Your task to perform on an android device: Open Youtube and go to the subscriptions tab Image 0: 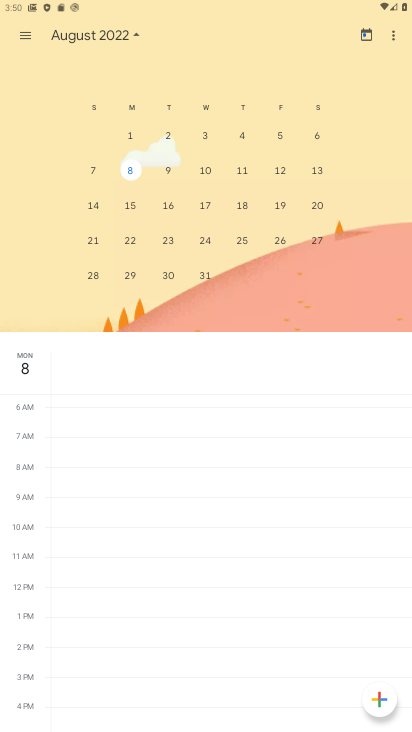
Step 0: press home button
Your task to perform on an android device: Open Youtube and go to the subscriptions tab Image 1: 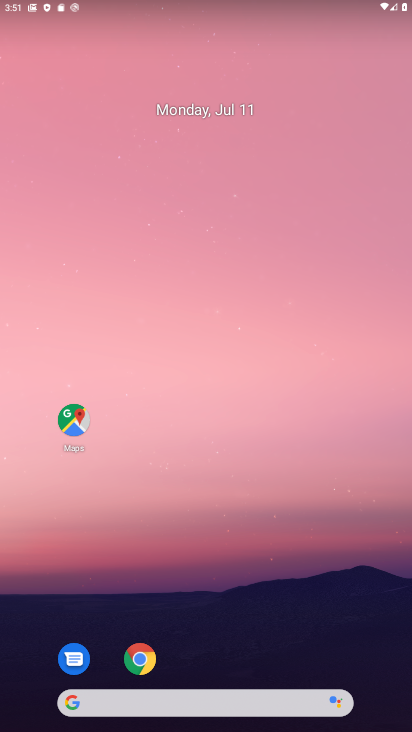
Step 1: drag from (204, 651) to (208, 52)
Your task to perform on an android device: Open Youtube and go to the subscriptions tab Image 2: 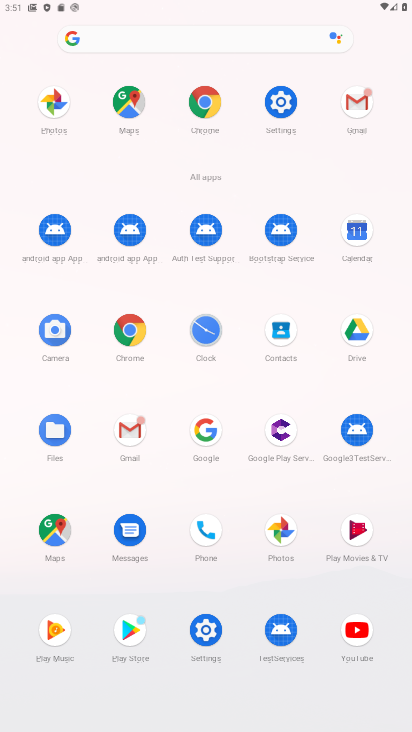
Step 2: click (363, 621)
Your task to perform on an android device: Open Youtube and go to the subscriptions tab Image 3: 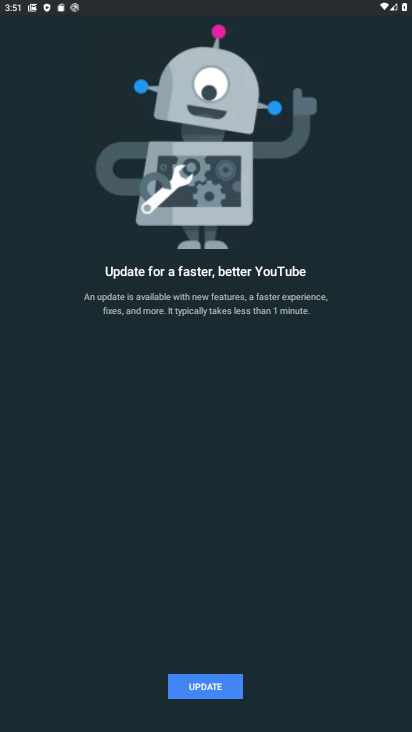
Step 3: click (203, 686)
Your task to perform on an android device: Open Youtube and go to the subscriptions tab Image 4: 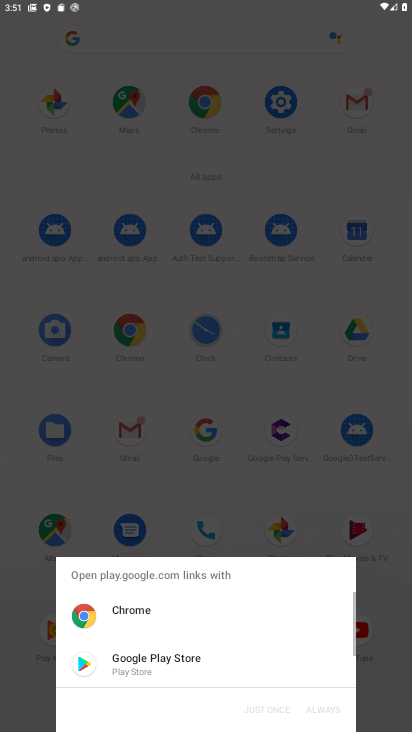
Step 4: click (219, 675)
Your task to perform on an android device: Open Youtube and go to the subscriptions tab Image 5: 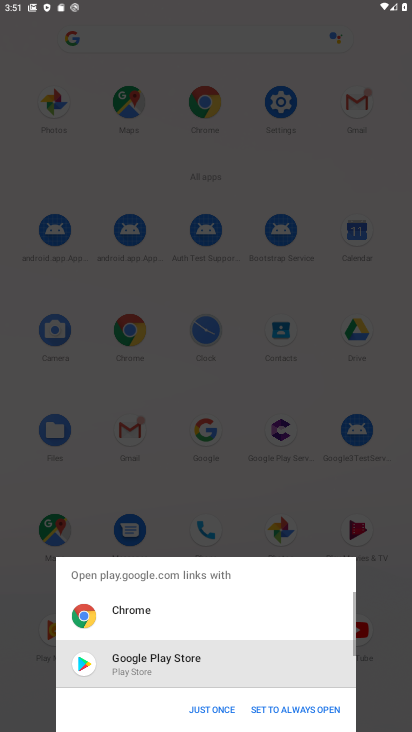
Step 5: click (257, 704)
Your task to perform on an android device: Open Youtube and go to the subscriptions tab Image 6: 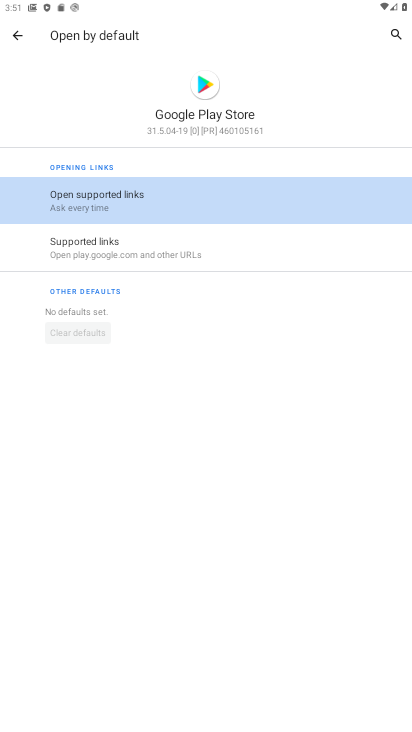
Step 6: press back button
Your task to perform on an android device: Open Youtube and go to the subscriptions tab Image 7: 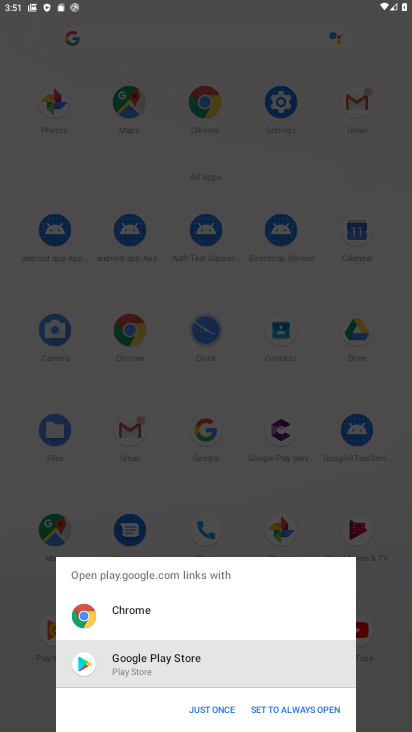
Step 7: click (204, 711)
Your task to perform on an android device: Open Youtube and go to the subscriptions tab Image 8: 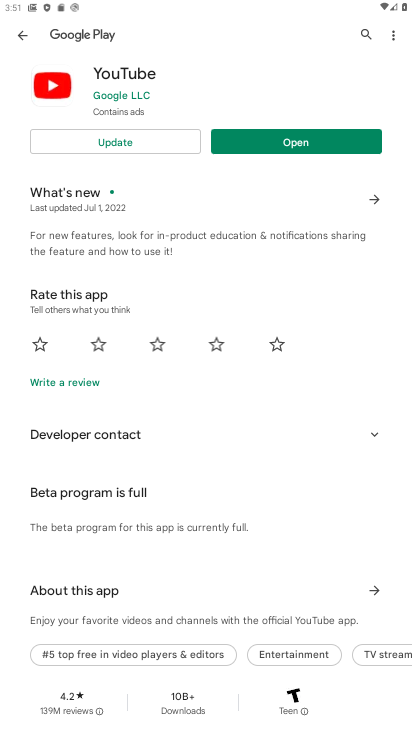
Step 8: click (158, 131)
Your task to perform on an android device: Open Youtube and go to the subscriptions tab Image 9: 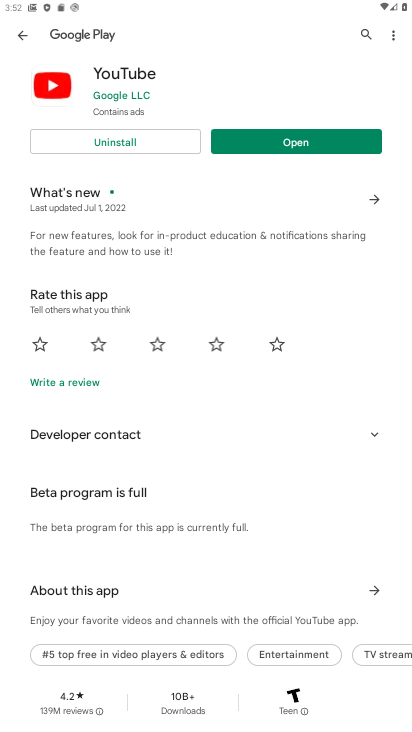
Step 9: click (249, 129)
Your task to perform on an android device: Open Youtube and go to the subscriptions tab Image 10: 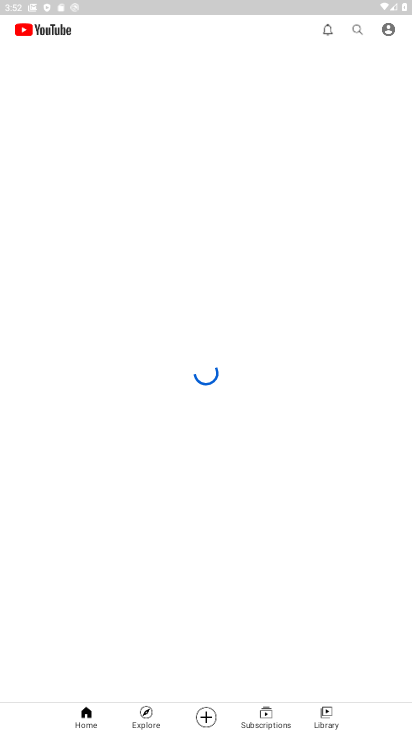
Step 10: click (233, 710)
Your task to perform on an android device: Open Youtube and go to the subscriptions tab Image 11: 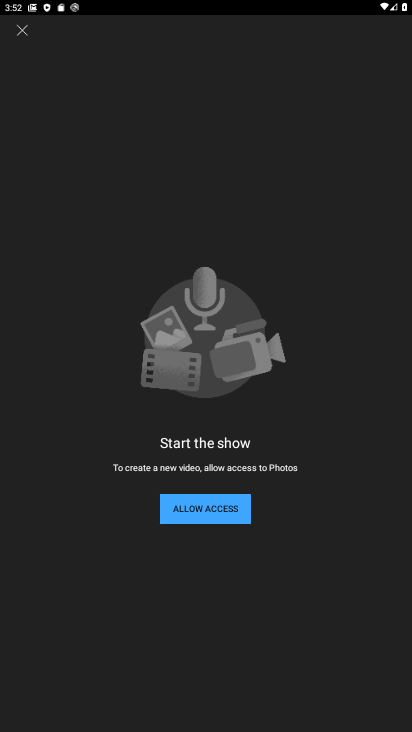
Step 11: click (232, 503)
Your task to perform on an android device: Open Youtube and go to the subscriptions tab Image 12: 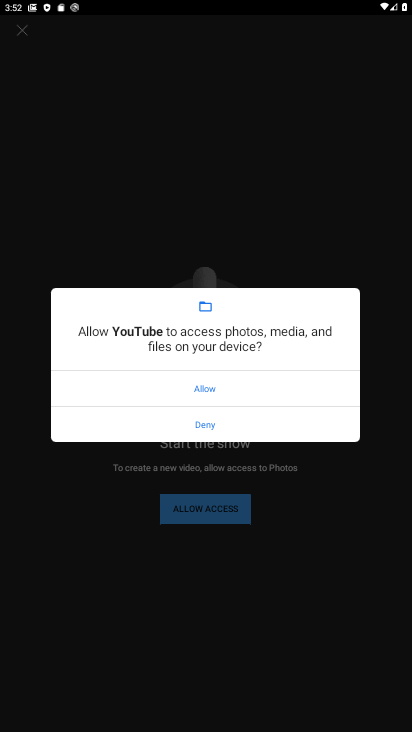
Step 12: click (220, 405)
Your task to perform on an android device: Open Youtube and go to the subscriptions tab Image 13: 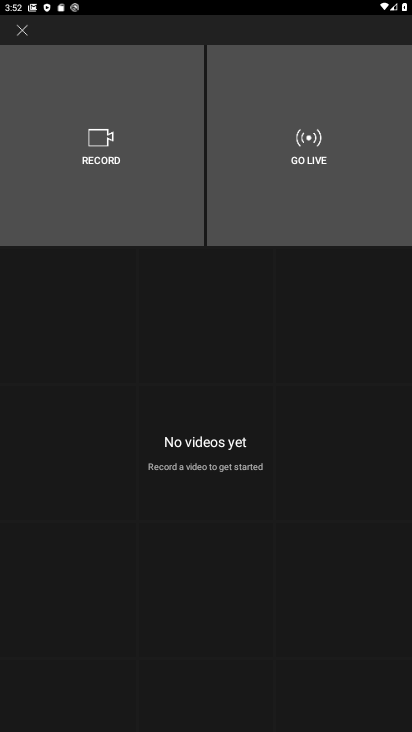
Step 13: click (26, 28)
Your task to perform on an android device: Open Youtube and go to the subscriptions tab Image 14: 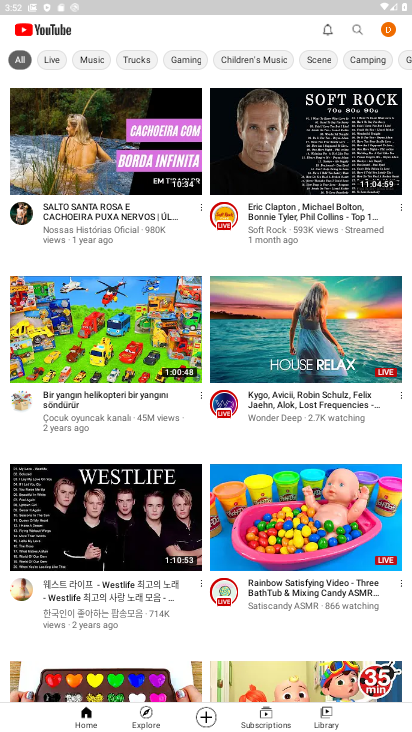
Step 14: click (274, 714)
Your task to perform on an android device: Open Youtube and go to the subscriptions tab Image 15: 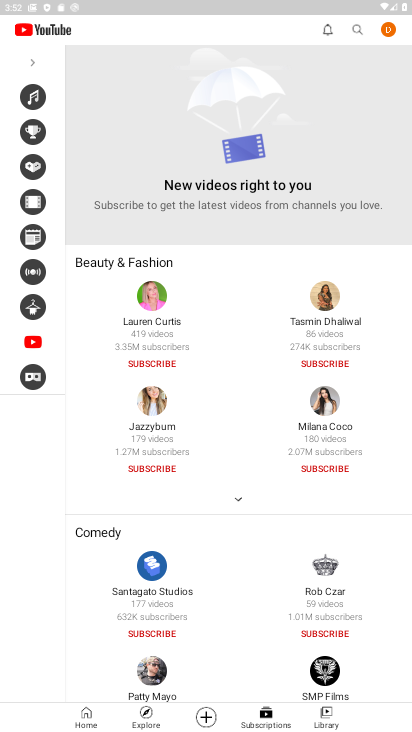
Step 15: task complete